Your task to perform on an android device: What's the weather going to be tomorrow? Image 0: 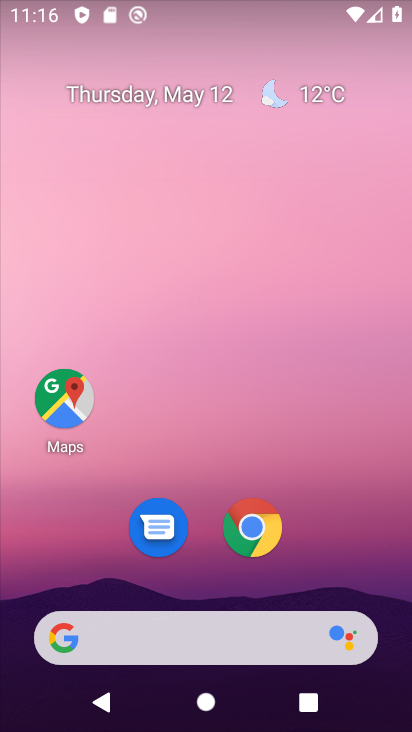
Step 0: click (218, 639)
Your task to perform on an android device: What's the weather going to be tomorrow? Image 1: 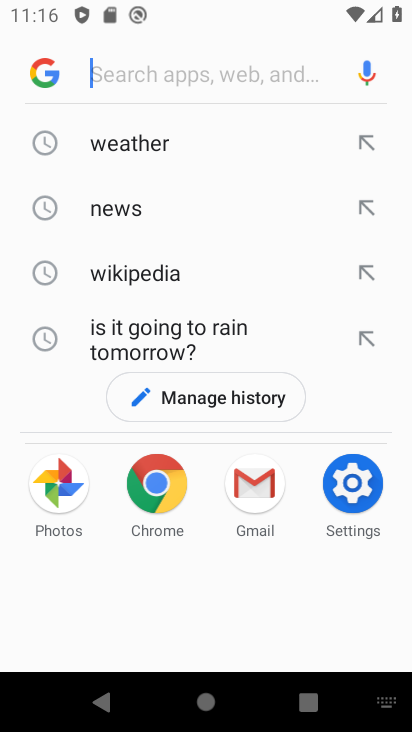
Step 1: click (147, 130)
Your task to perform on an android device: What's the weather going to be tomorrow? Image 2: 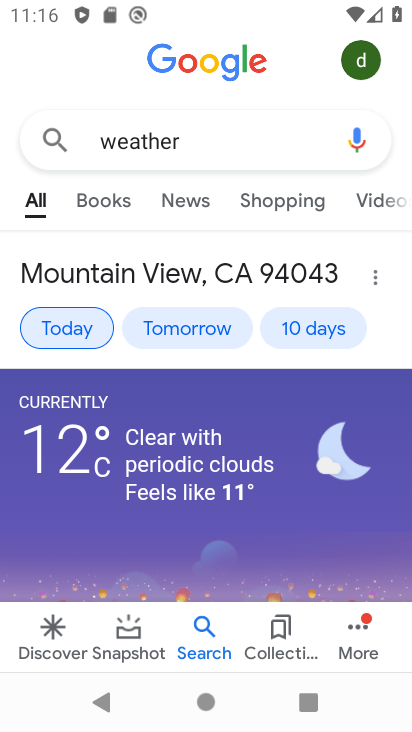
Step 2: click (169, 314)
Your task to perform on an android device: What's the weather going to be tomorrow? Image 3: 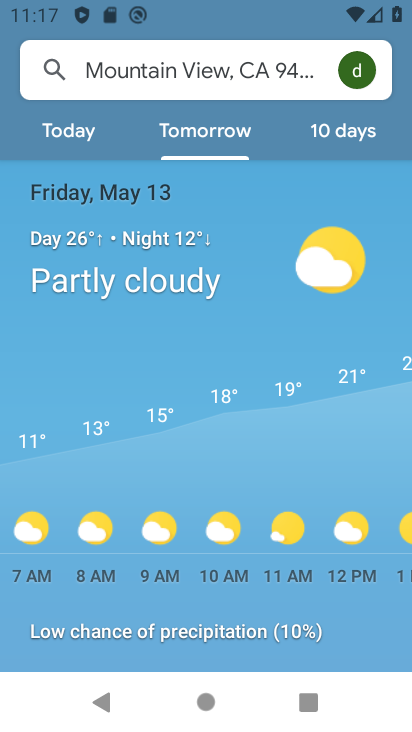
Step 3: task complete